Your task to perform on an android device: When is my next meeting? Image 0: 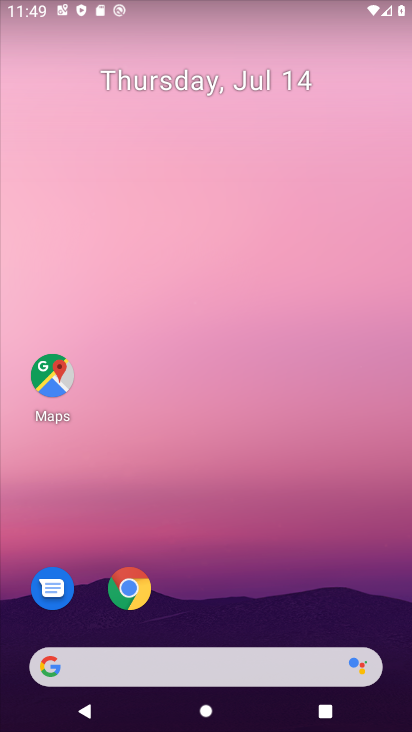
Step 0: drag from (192, 587) to (259, 146)
Your task to perform on an android device: When is my next meeting? Image 1: 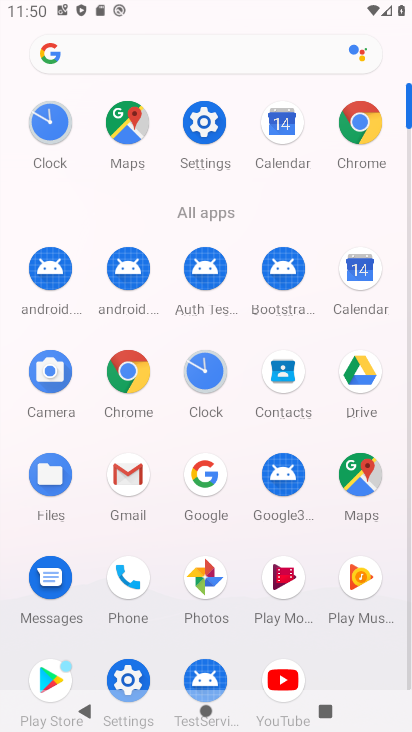
Step 1: click (365, 275)
Your task to perform on an android device: When is my next meeting? Image 2: 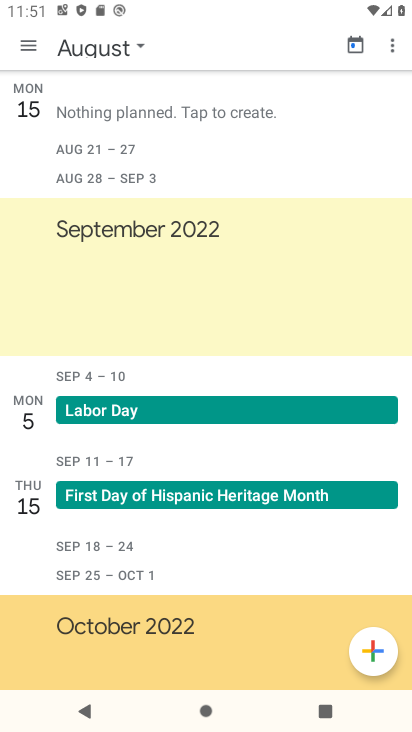
Step 2: task complete